Your task to perform on an android device: toggle wifi Image 0: 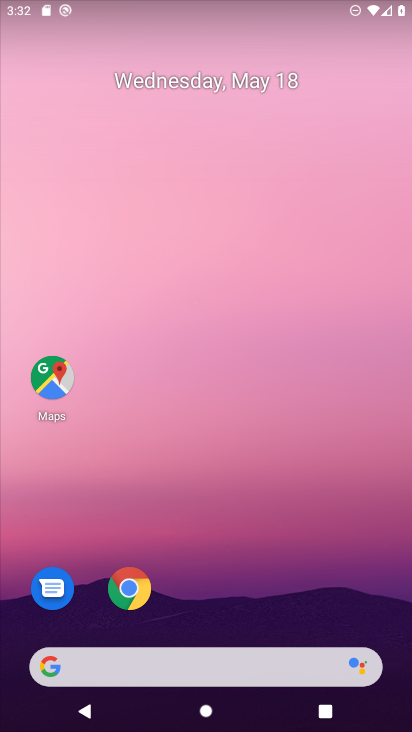
Step 0: drag from (276, 629) to (215, 120)
Your task to perform on an android device: toggle wifi Image 1: 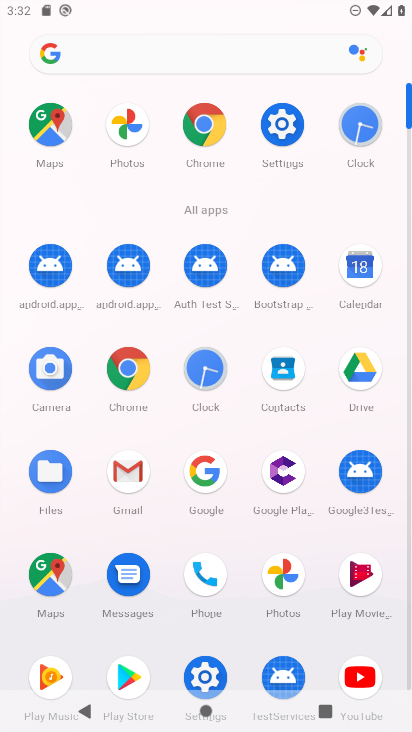
Step 1: click (291, 161)
Your task to perform on an android device: toggle wifi Image 2: 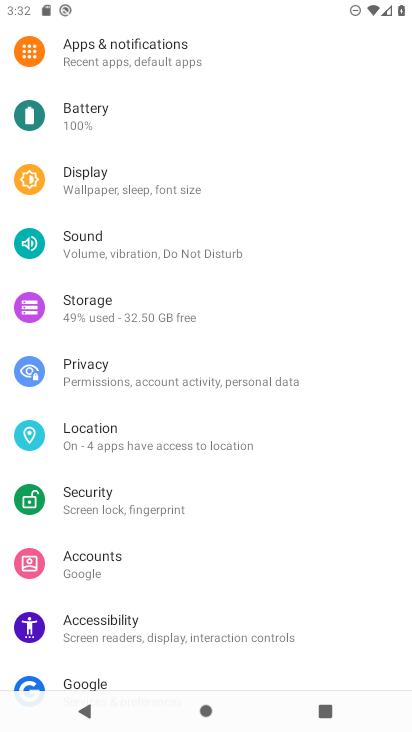
Step 2: drag from (160, 143) to (195, 560)
Your task to perform on an android device: toggle wifi Image 3: 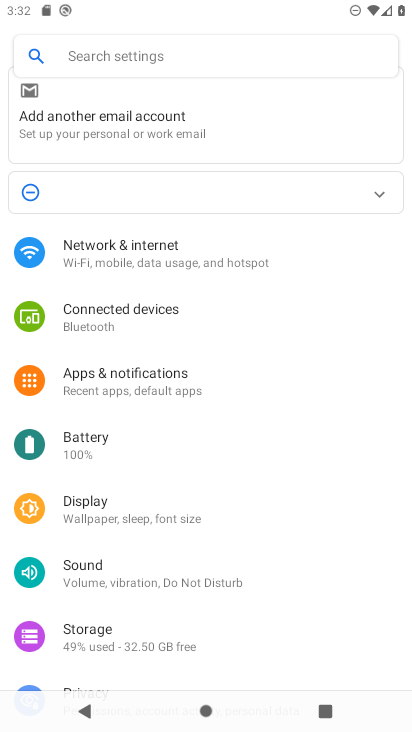
Step 3: click (188, 250)
Your task to perform on an android device: toggle wifi Image 4: 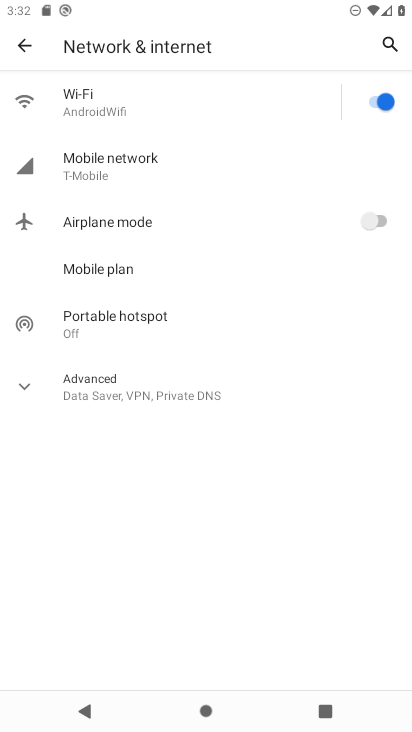
Step 4: task complete